Your task to perform on an android device: turn on wifi Image 0: 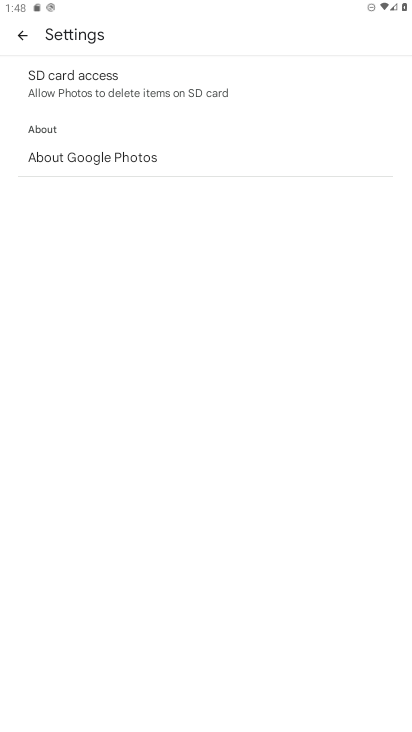
Step 0: press home button
Your task to perform on an android device: turn on wifi Image 1: 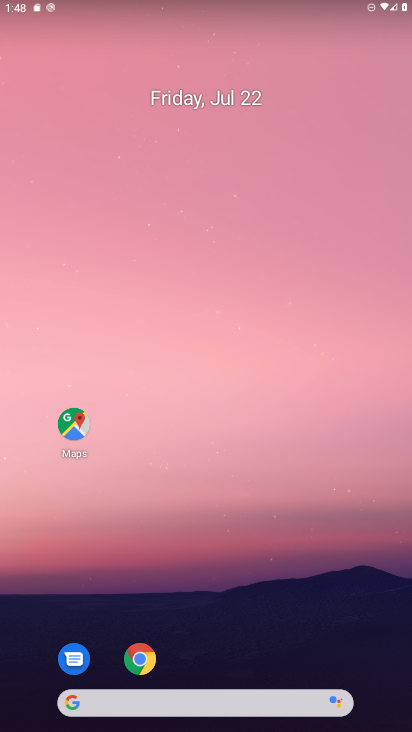
Step 1: drag from (207, 701) to (217, 136)
Your task to perform on an android device: turn on wifi Image 2: 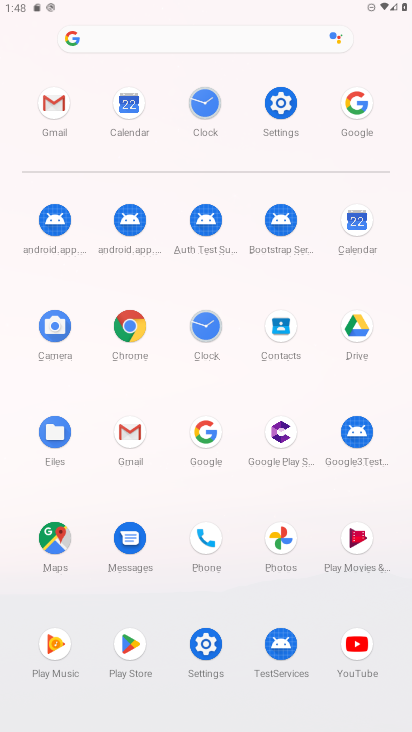
Step 2: click (204, 643)
Your task to perform on an android device: turn on wifi Image 3: 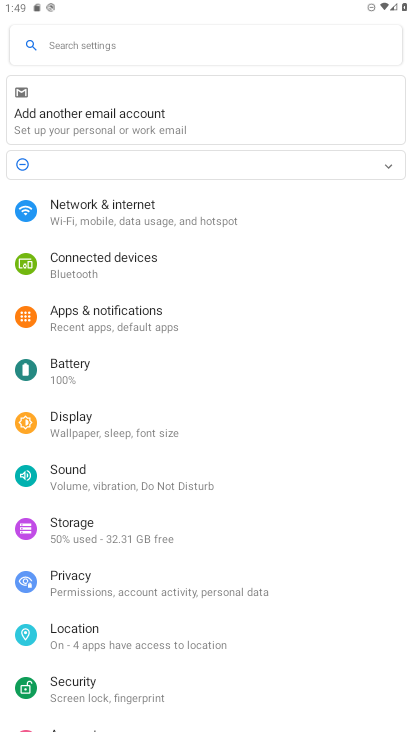
Step 3: click (67, 215)
Your task to perform on an android device: turn on wifi Image 4: 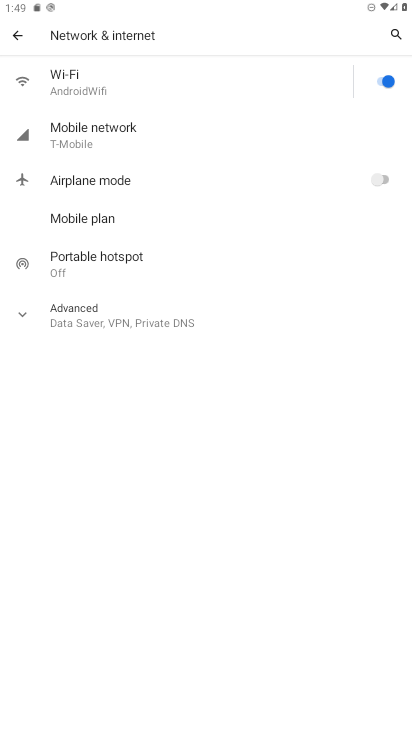
Step 4: task complete